Your task to perform on an android device: open app "NewsBreak: Local News & Alerts" (install if not already installed), go to login, and select forgot password Image 0: 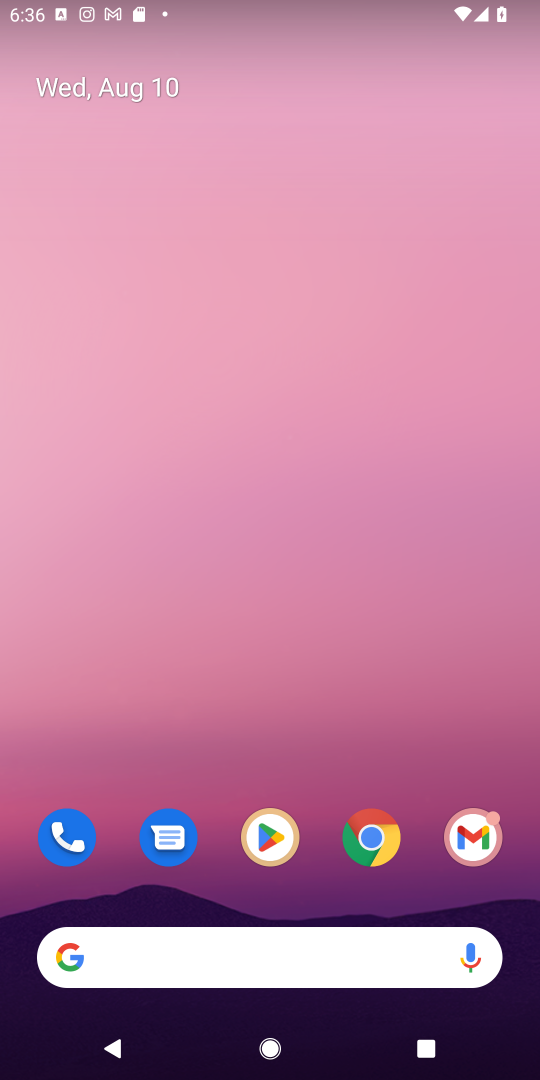
Step 0: press home button
Your task to perform on an android device: open app "NewsBreak: Local News & Alerts" (install if not already installed), go to login, and select forgot password Image 1: 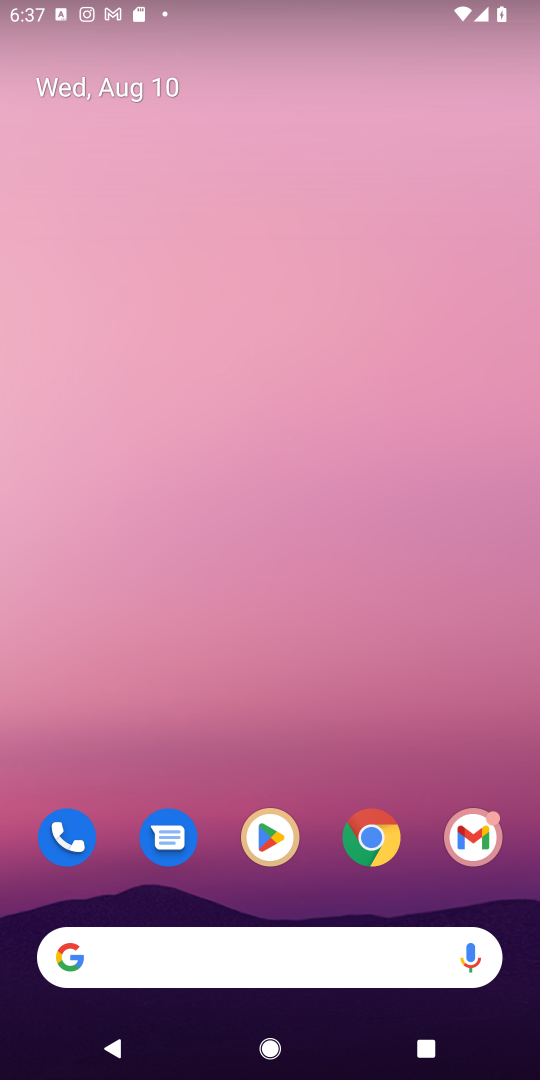
Step 1: click (280, 835)
Your task to perform on an android device: open app "NewsBreak: Local News & Alerts" (install if not already installed), go to login, and select forgot password Image 2: 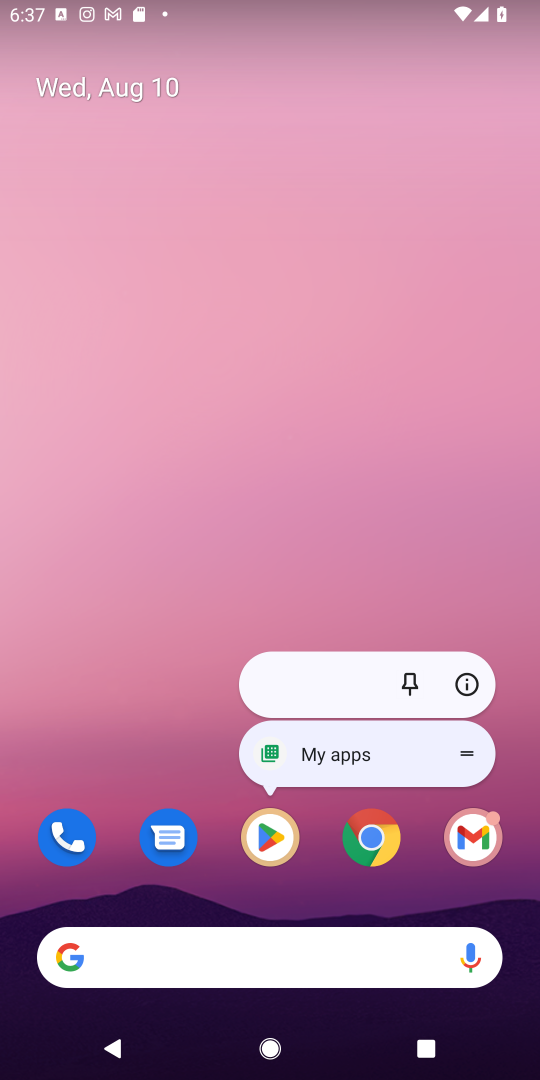
Step 2: click (262, 843)
Your task to perform on an android device: open app "NewsBreak: Local News & Alerts" (install if not already installed), go to login, and select forgot password Image 3: 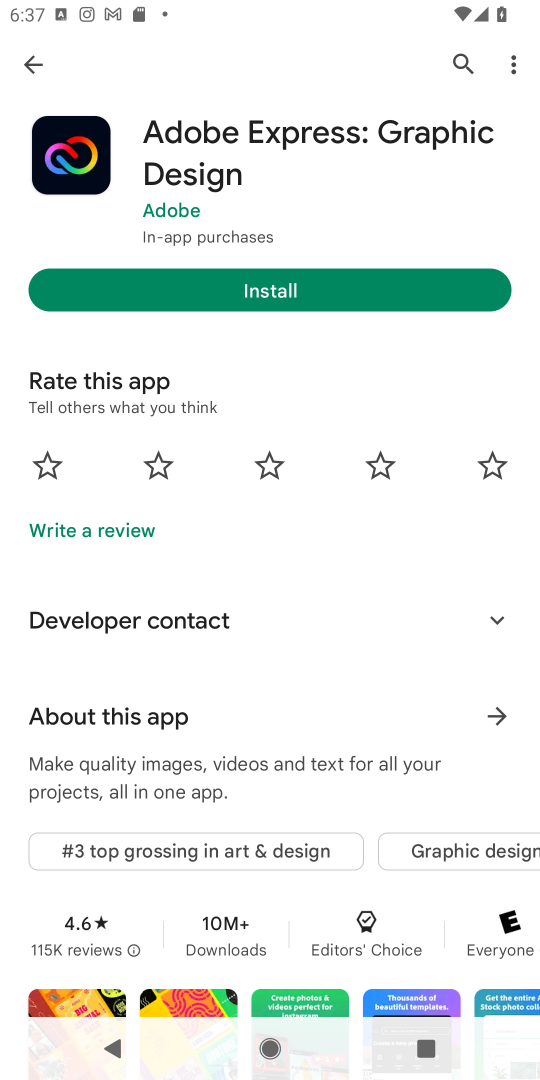
Step 3: click (466, 59)
Your task to perform on an android device: open app "NewsBreak: Local News & Alerts" (install if not already installed), go to login, and select forgot password Image 4: 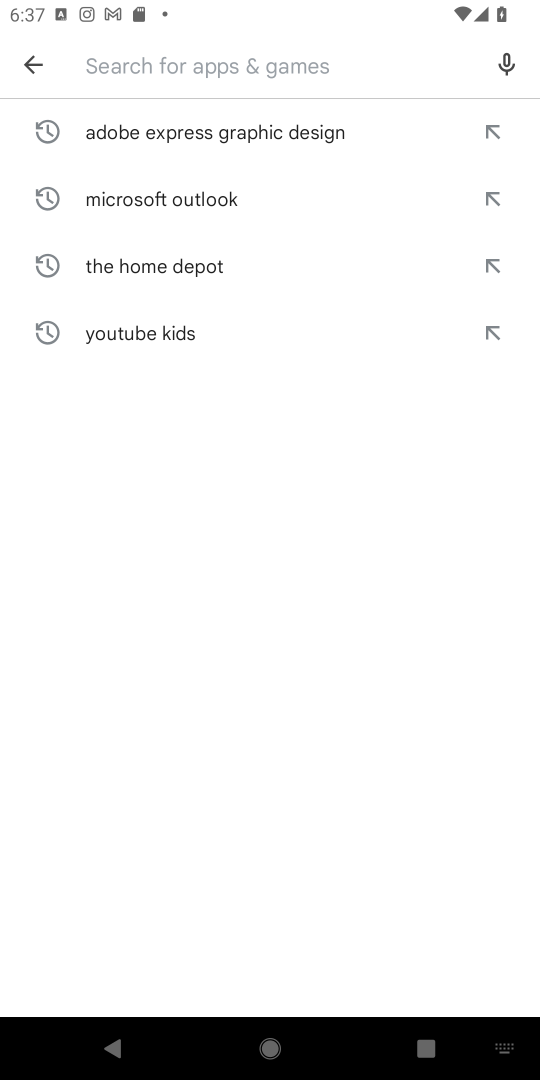
Step 4: type "NewsBreak: Local News & Alerts"
Your task to perform on an android device: open app "NewsBreak: Local News & Alerts" (install if not already installed), go to login, and select forgot password Image 5: 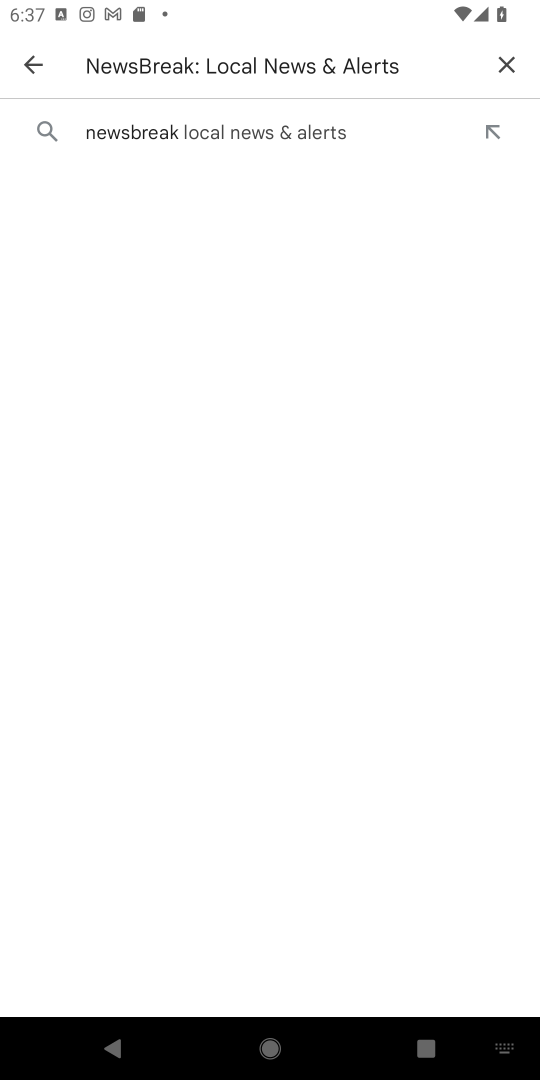
Step 5: click (232, 142)
Your task to perform on an android device: open app "NewsBreak: Local News & Alerts" (install if not already installed), go to login, and select forgot password Image 6: 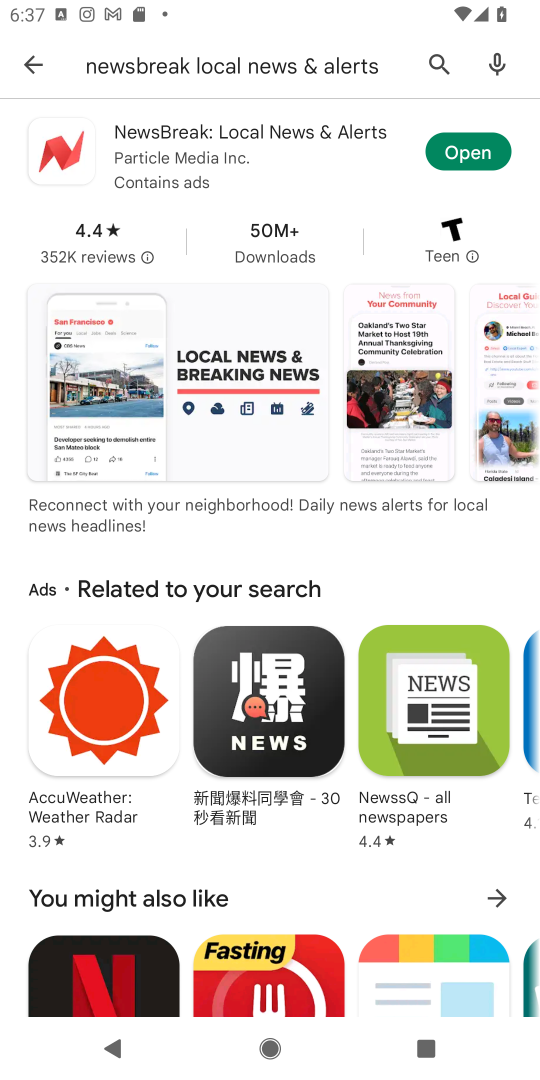
Step 6: click (463, 143)
Your task to perform on an android device: open app "NewsBreak: Local News & Alerts" (install if not already installed), go to login, and select forgot password Image 7: 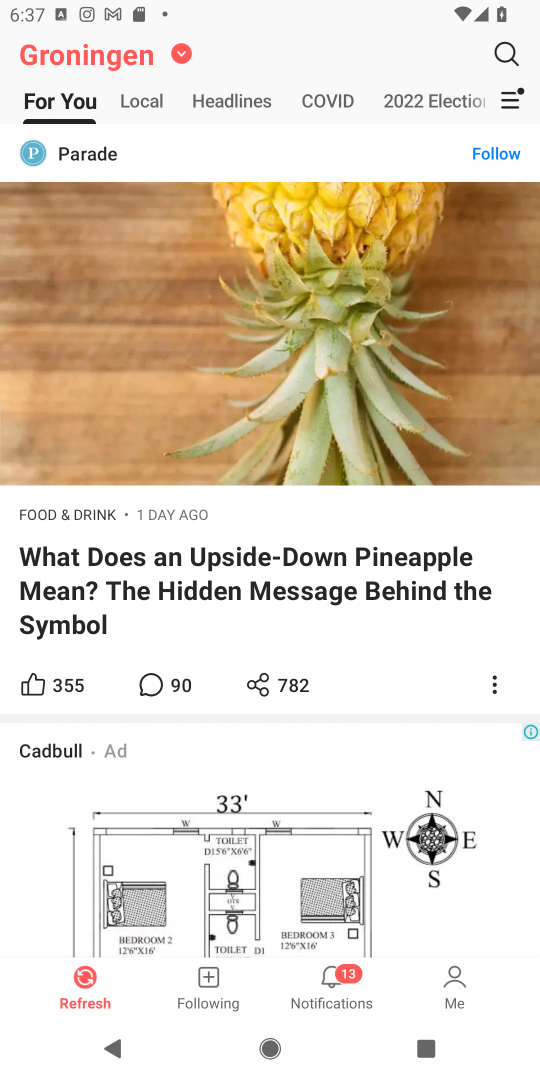
Step 7: task complete